Your task to perform on an android device: Find coffee shops on Maps Image 0: 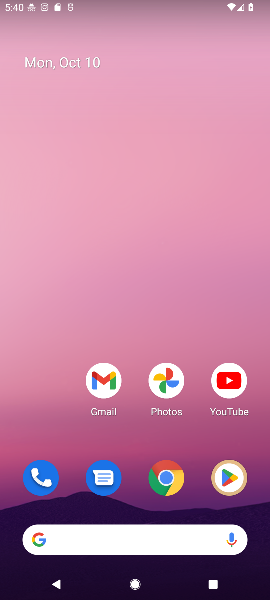
Step 0: drag from (184, 511) to (136, 59)
Your task to perform on an android device: Find coffee shops on Maps Image 1: 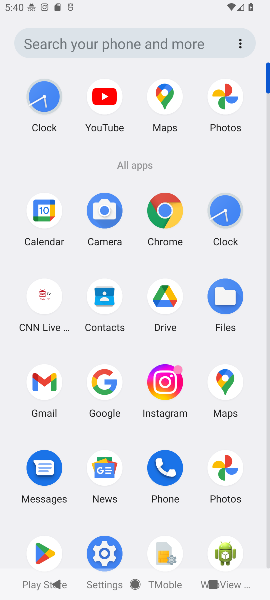
Step 1: click (177, 100)
Your task to perform on an android device: Find coffee shops on Maps Image 2: 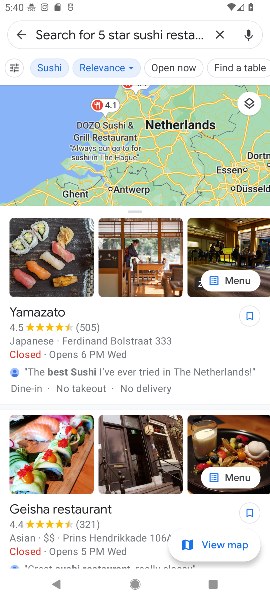
Step 2: click (223, 41)
Your task to perform on an android device: Find coffee shops on Maps Image 3: 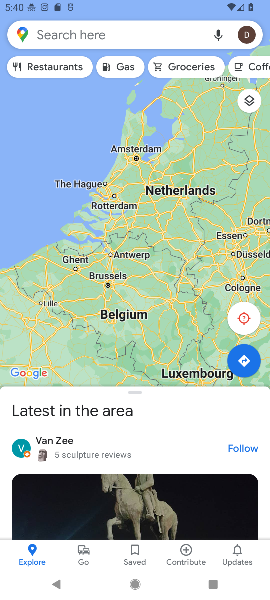
Step 3: click (203, 38)
Your task to perform on an android device: Find coffee shops on Maps Image 4: 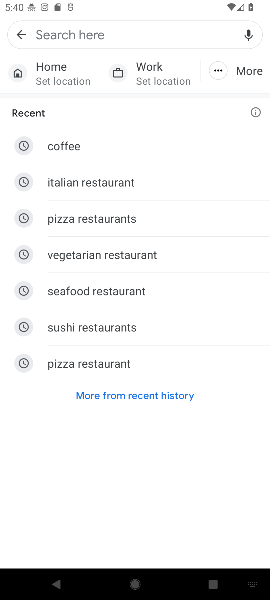
Step 4: click (102, 138)
Your task to perform on an android device: Find coffee shops on Maps Image 5: 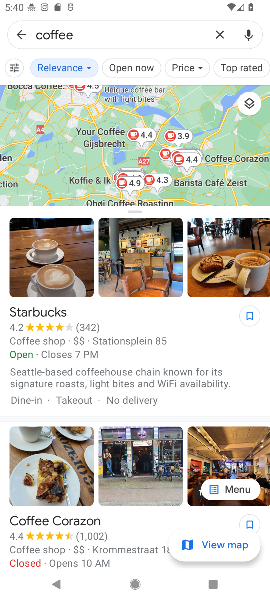
Step 5: task complete